Your task to perform on an android device: What is the news today? Image 0: 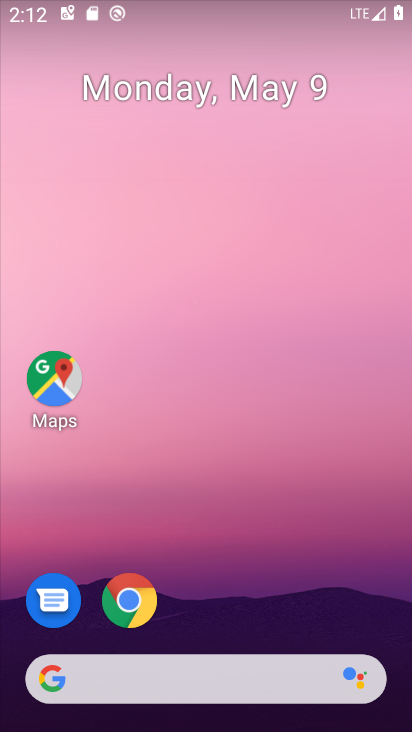
Step 0: drag from (300, 587) to (258, 59)
Your task to perform on an android device: What is the news today? Image 1: 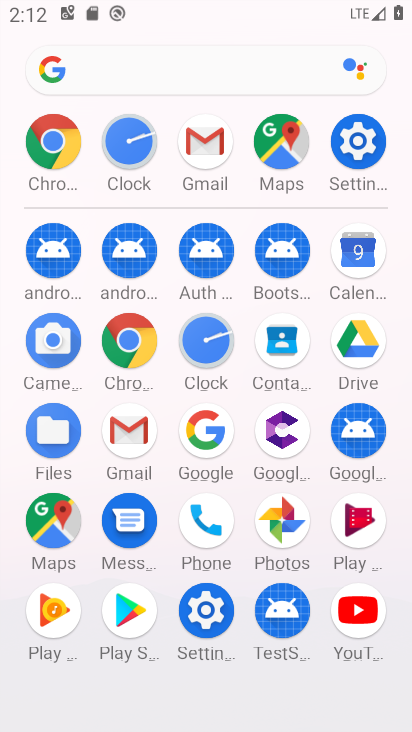
Step 1: click (139, 65)
Your task to perform on an android device: What is the news today? Image 2: 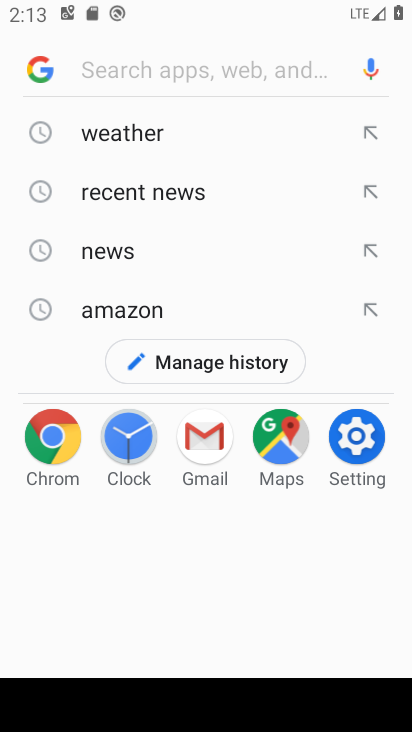
Step 2: type "what is the news today"
Your task to perform on an android device: What is the news today? Image 3: 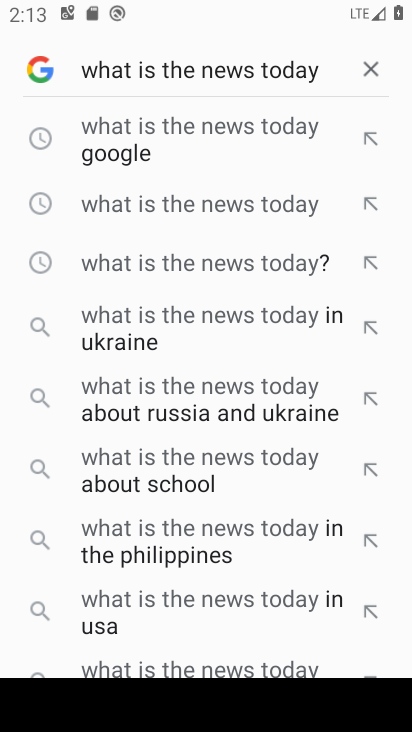
Step 3: click (300, 269)
Your task to perform on an android device: What is the news today? Image 4: 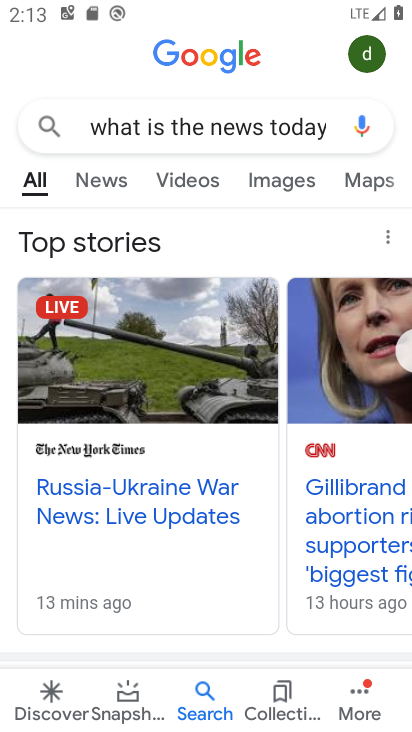
Step 4: click (94, 179)
Your task to perform on an android device: What is the news today? Image 5: 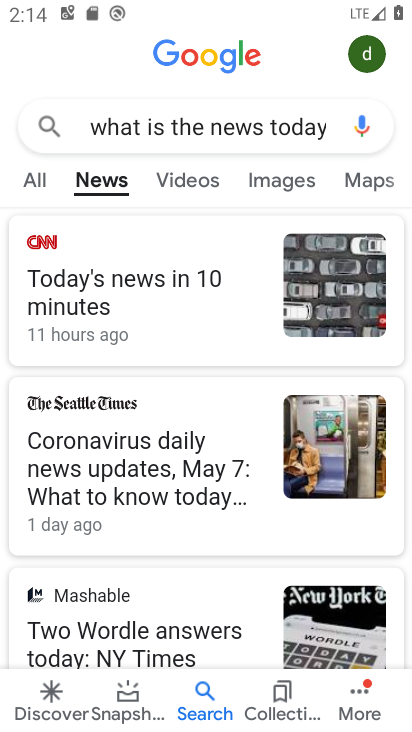
Step 5: task complete